Your task to perform on an android device: refresh tabs in the chrome app Image 0: 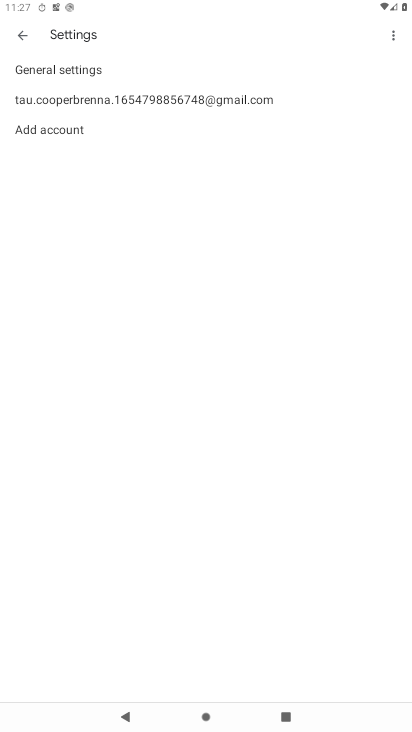
Step 0: press home button
Your task to perform on an android device: refresh tabs in the chrome app Image 1: 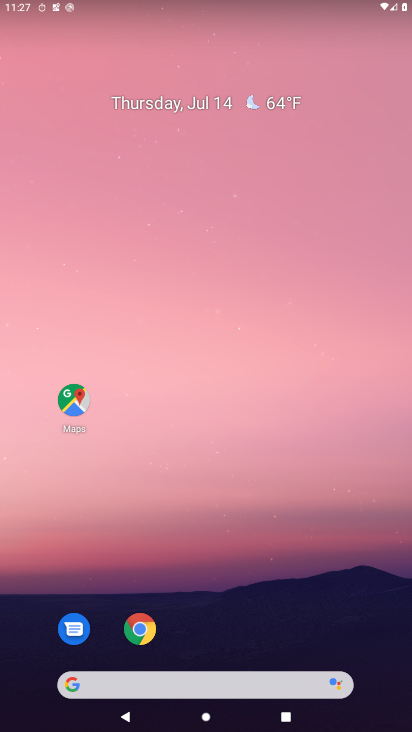
Step 1: click (148, 642)
Your task to perform on an android device: refresh tabs in the chrome app Image 2: 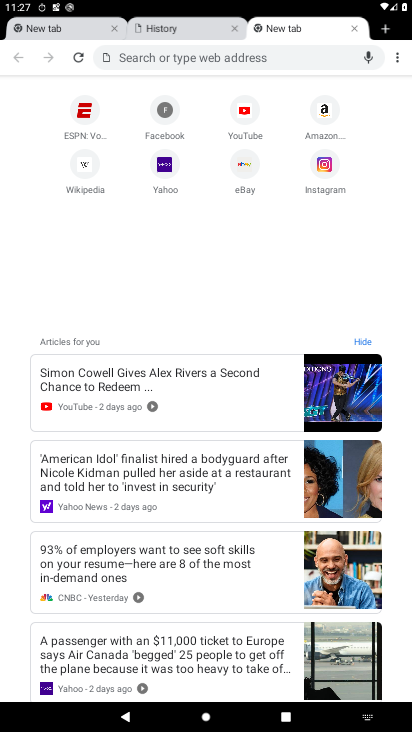
Step 2: click (399, 59)
Your task to perform on an android device: refresh tabs in the chrome app Image 3: 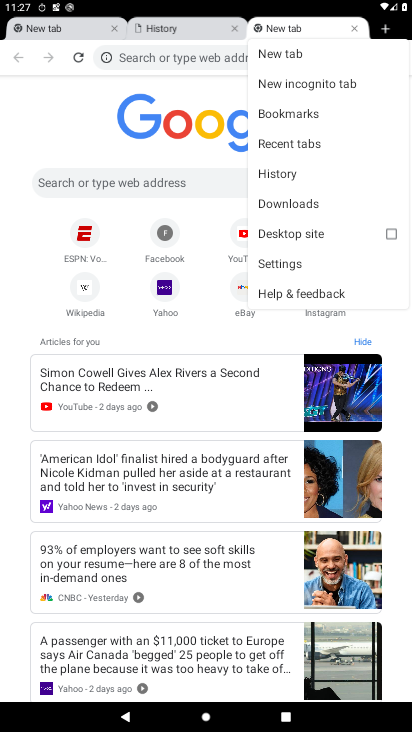
Step 3: click (78, 55)
Your task to perform on an android device: refresh tabs in the chrome app Image 4: 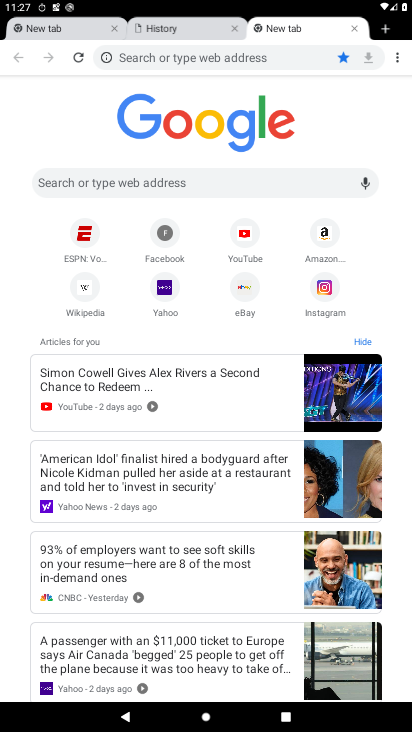
Step 4: task complete